Your task to perform on an android device: Show me productivity apps on the Play Store Image 0: 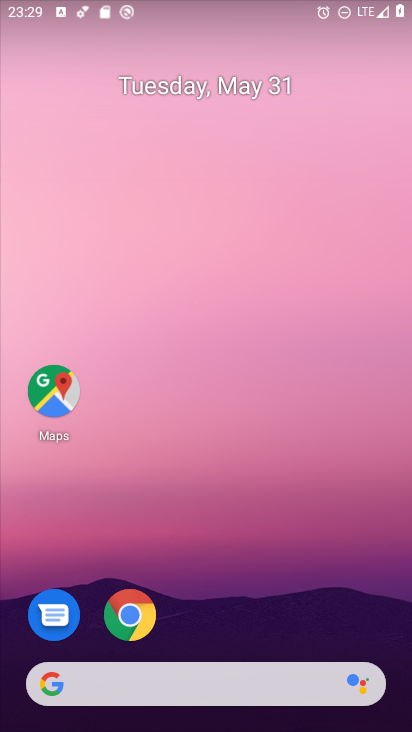
Step 0: drag from (391, 636) to (328, 73)
Your task to perform on an android device: Show me productivity apps on the Play Store Image 1: 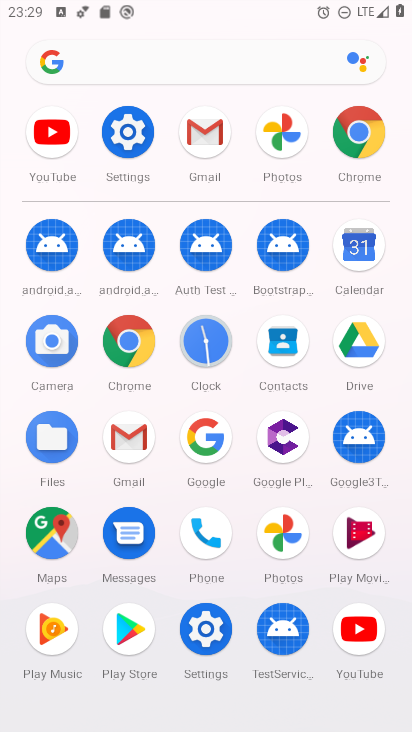
Step 1: click (137, 628)
Your task to perform on an android device: Show me productivity apps on the Play Store Image 2: 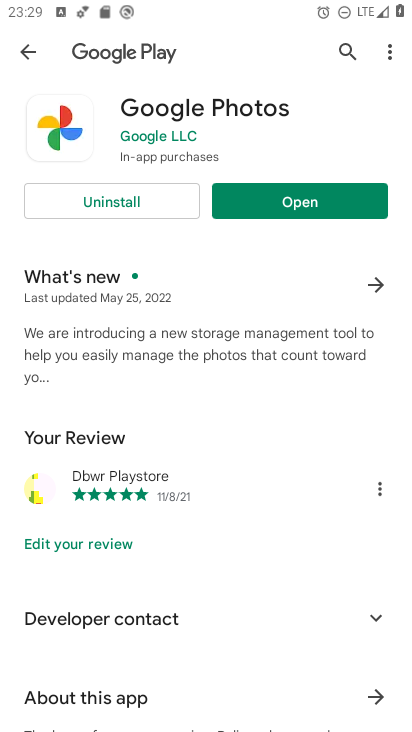
Step 2: press back button
Your task to perform on an android device: Show me productivity apps on the Play Store Image 3: 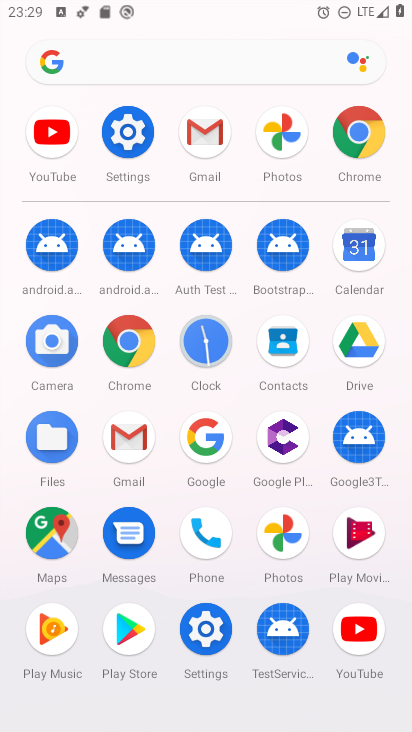
Step 3: click (137, 628)
Your task to perform on an android device: Show me productivity apps on the Play Store Image 4: 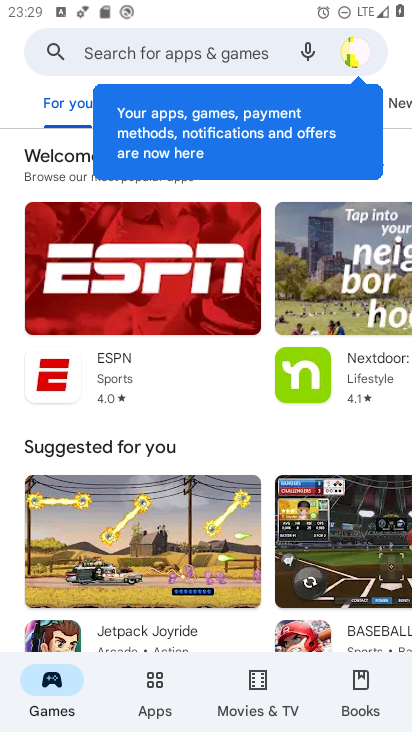
Step 4: click (160, 685)
Your task to perform on an android device: Show me productivity apps on the Play Store Image 5: 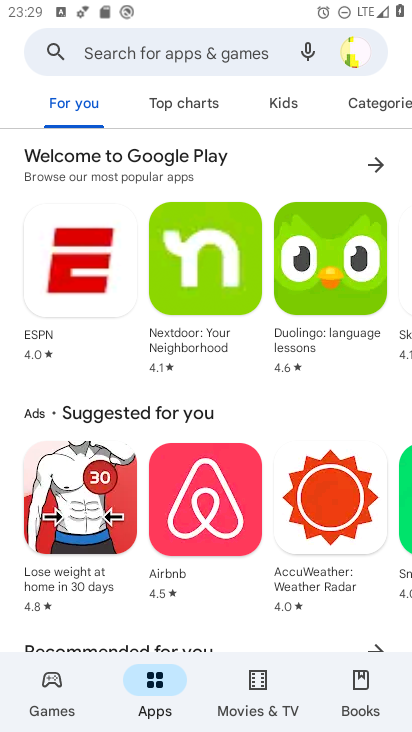
Step 5: click (367, 104)
Your task to perform on an android device: Show me productivity apps on the Play Store Image 6: 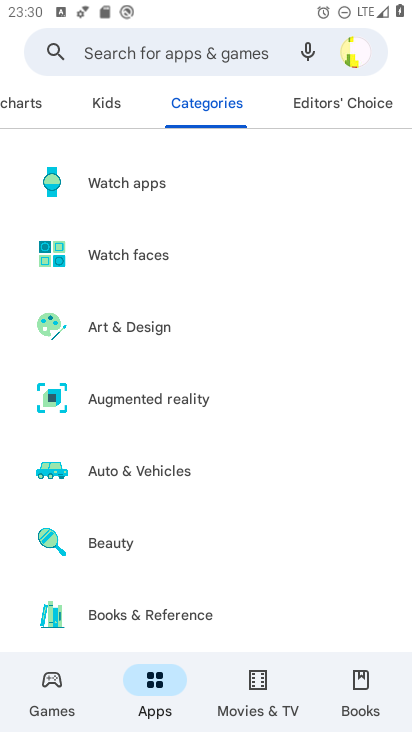
Step 6: drag from (243, 605) to (236, 140)
Your task to perform on an android device: Show me productivity apps on the Play Store Image 7: 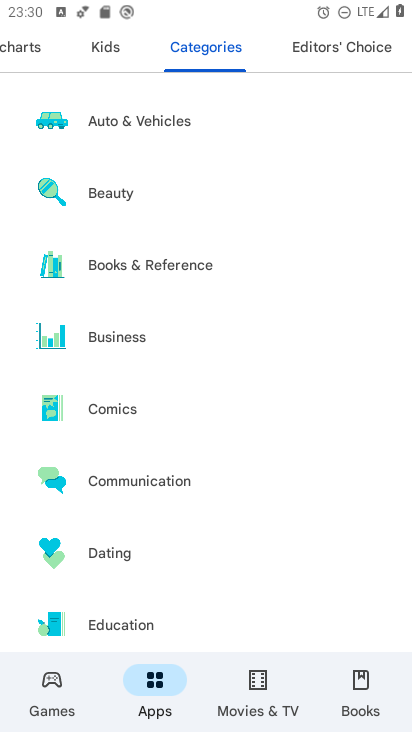
Step 7: drag from (214, 600) to (236, 100)
Your task to perform on an android device: Show me productivity apps on the Play Store Image 8: 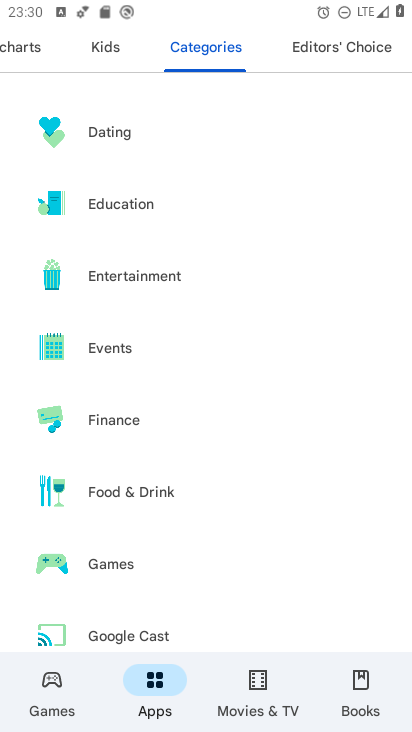
Step 8: drag from (184, 570) to (162, 249)
Your task to perform on an android device: Show me productivity apps on the Play Store Image 9: 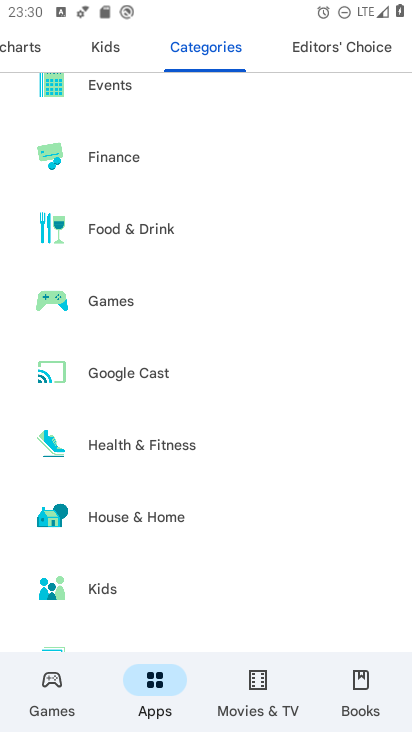
Step 9: drag from (238, 611) to (225, 172)
Your task to perform on an android device: Show me productivity apps on the Play Store Image 10: 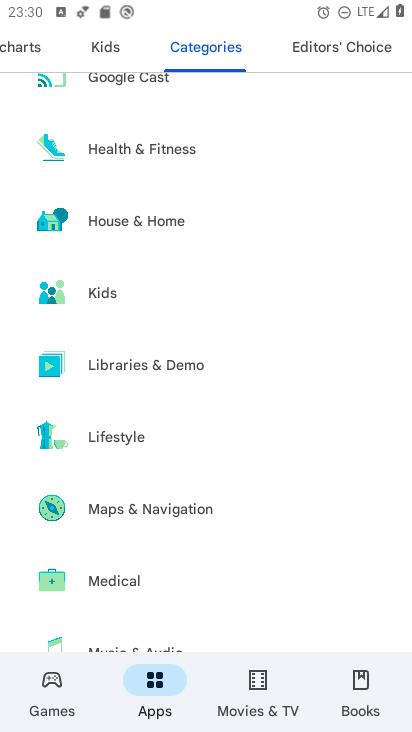
Step 10: drag from (238, 572) to (226, 176)
Your task to perform on an android device: Show me productivity apps on the Play Store Image 11: 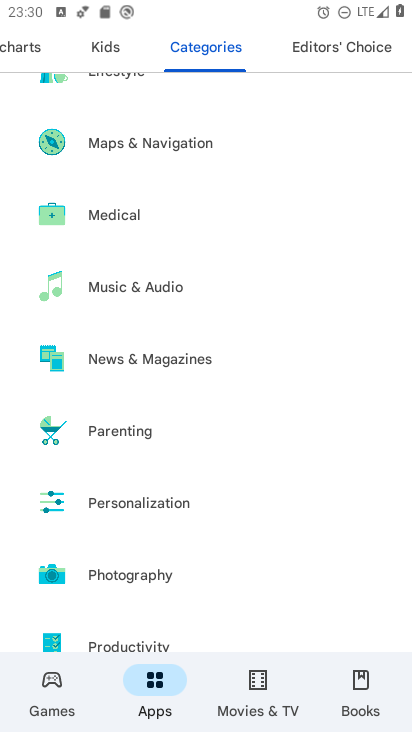
Step 11: drag from (141, 643) to (181, 269)
Your task to perform on an android device: Show me productivity apps on the Play Store Image 12: 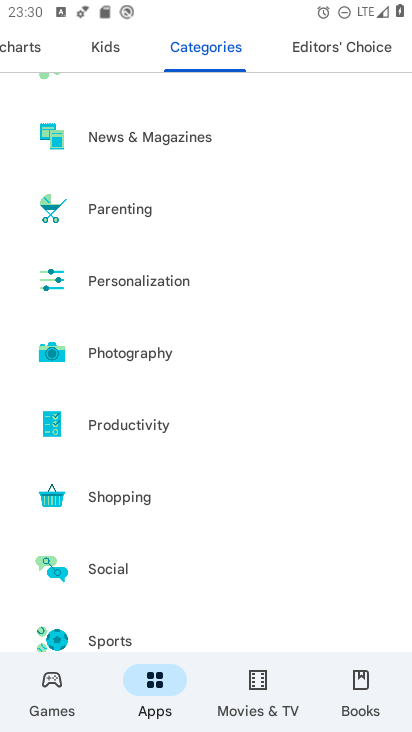
Step 12: click (121, 428)
Your task to perform on an android device: Show me productivity apps on the Play Store Image 13: 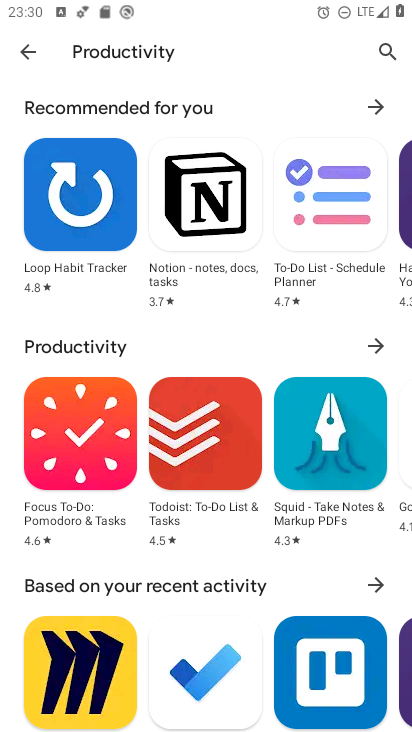
Step 13: click (381, 339)
Your task to perform on an android device: Show me productivity apps on the Play Store Image 14: 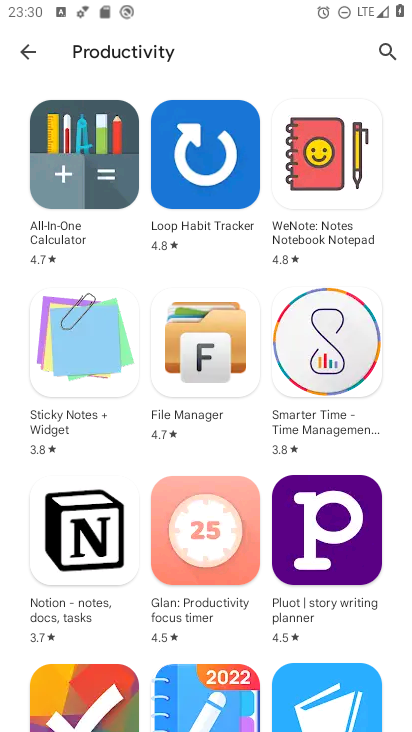
Step 14: task complete